Your task to perform on an android device: delete location history Image 0: 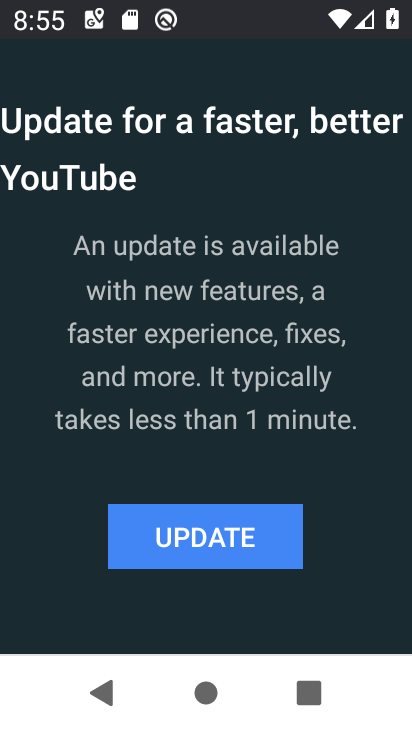
Step 0: press home button
Your task to perform on an android device: delete location history Image 1: 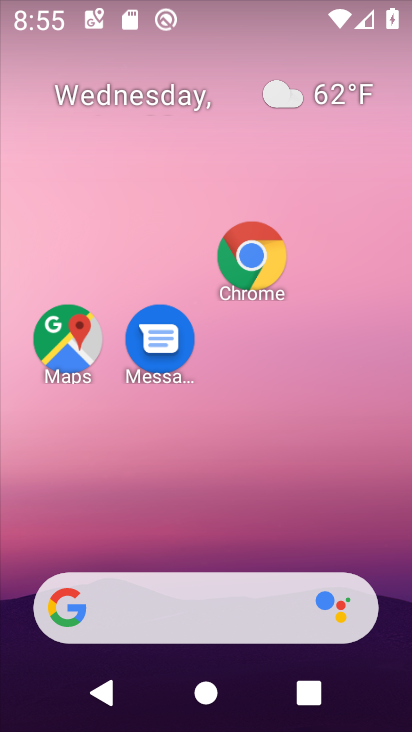
Step 1: drag from (245, 480) to (235, 0)
Your task to perform on an android device: delete location history Image 2: 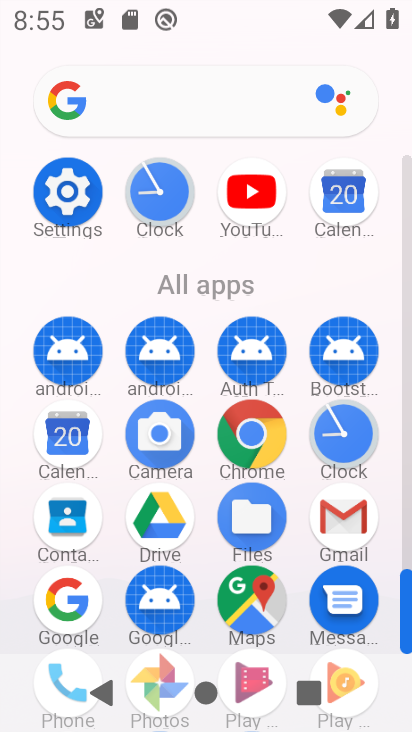
Step 2: click (69, 195)
Your task to perform on an android device: delete location history Image 3: 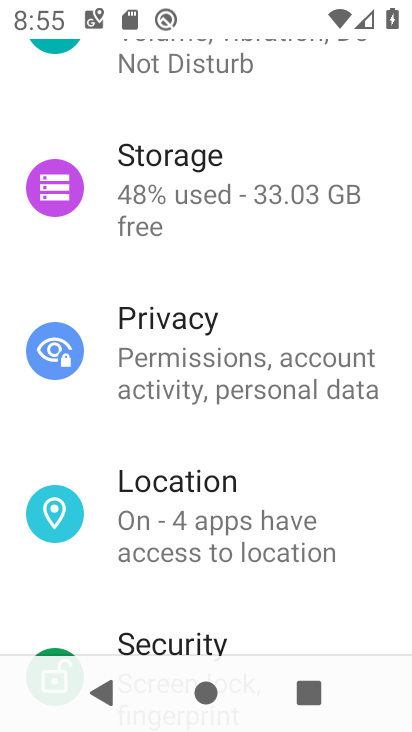
Step 3: click (204, 519)
Your task to perform on an android device: delete location history Image 4: 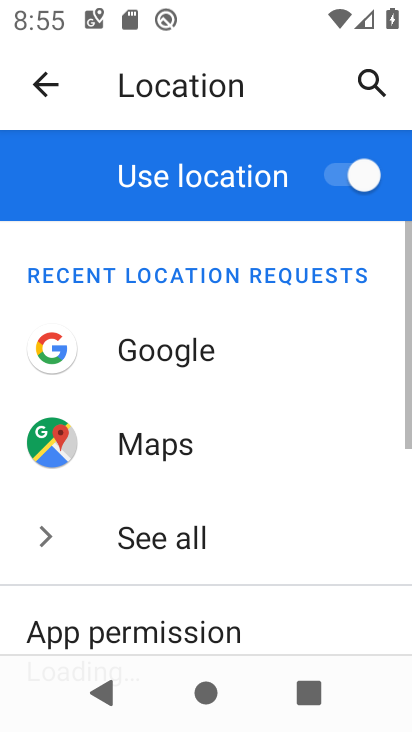
Step 4: drag from (261, 528) to (218, 54)
Your task to perform on an android device: delete location history Image 5: 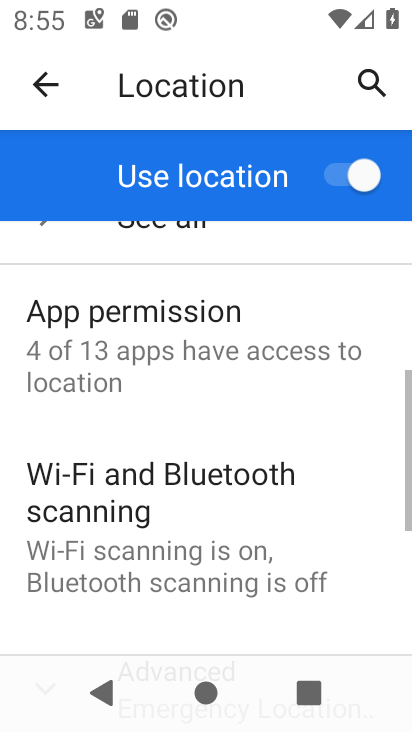
Step 5: drag from (198, 497) to (183, 71)
Your task to perform on an android device: delete location history Image 6: 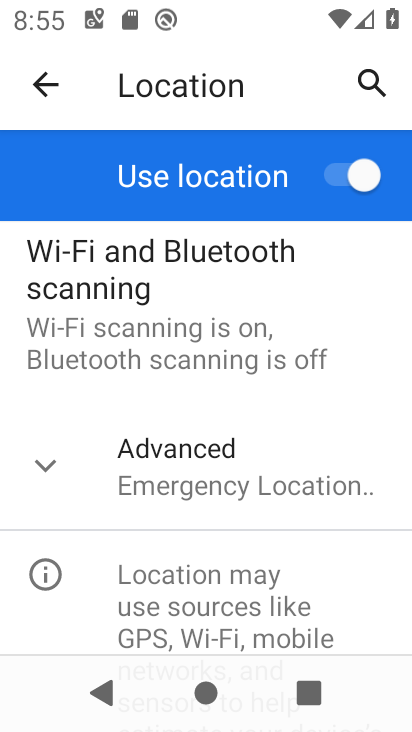
Step 6: click (182, 474)
Your task to perform on an android device: delete location history Image 7: 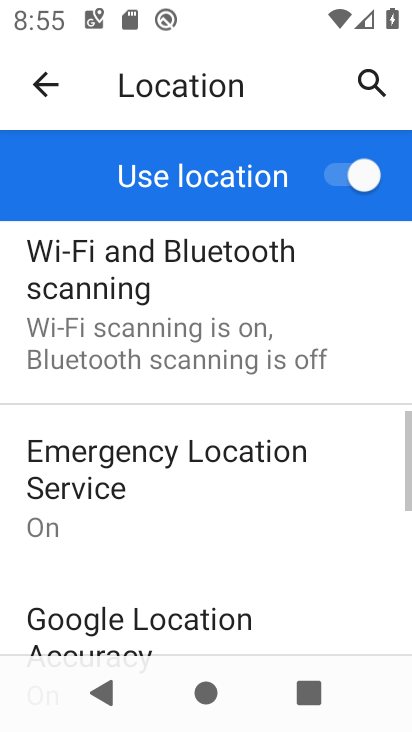
Step 7: drag from (227, 618) to (213, 178)
Your task to perform on an android device: delete location history Image 8: 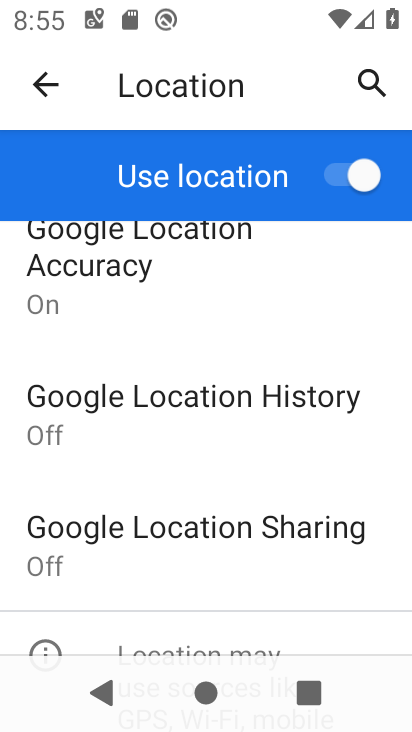
Step 8: click (165, 412)
Your task to perform on an android device: delete location history Image 9: 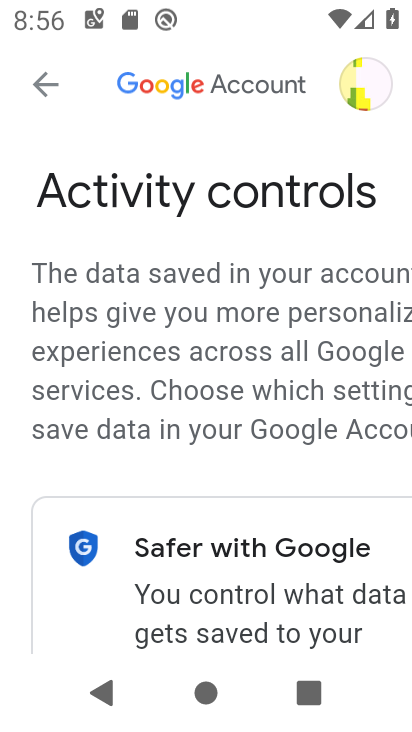
Step 9: drag from (275, 609) to (290, 45)
Your task to perform on an android device: delete location history Image 10: 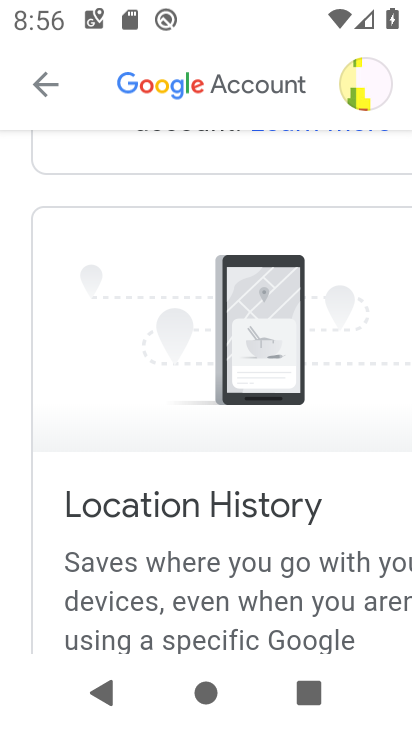
Step 10: drag from (236, 537) to (231, 230)
Your task to perform on an android device: delete location history Image 11: 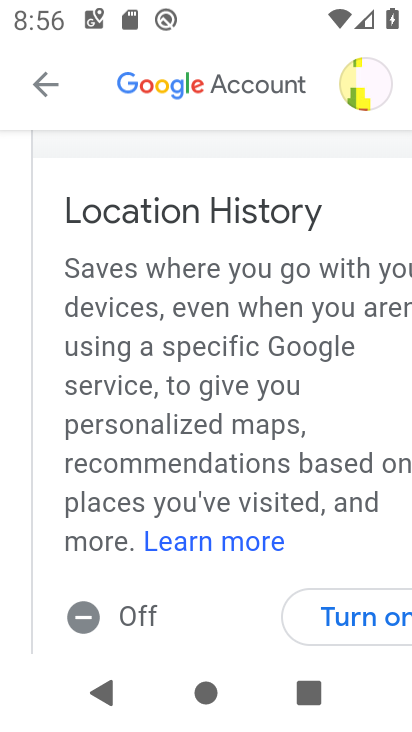
Step 11: drag from (204, 486) to (194, 216)
Your task to perform on an android device: delete location history Image 12: 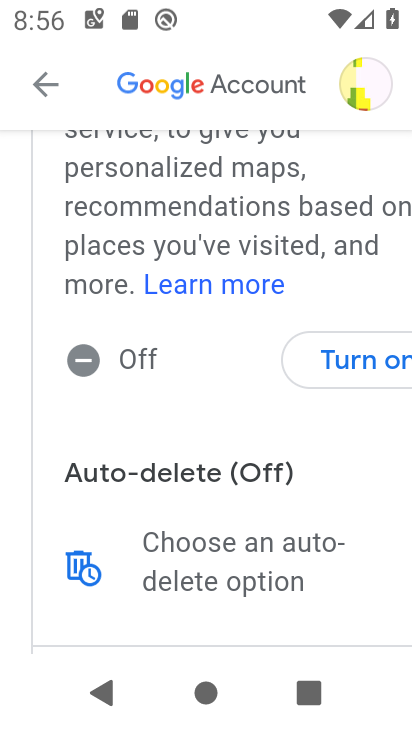
Step 12: click (78, 564)
Your task to perform on an android device: delete location history Image 13: 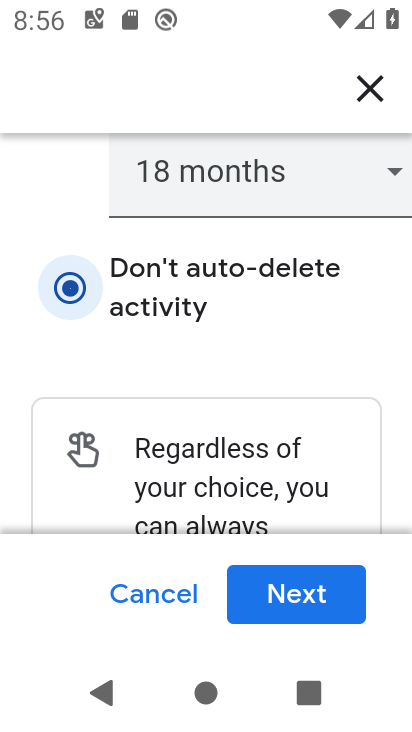
Step 13: click (286, 592)
Your task to perform on an android device: delete location history Image 14: 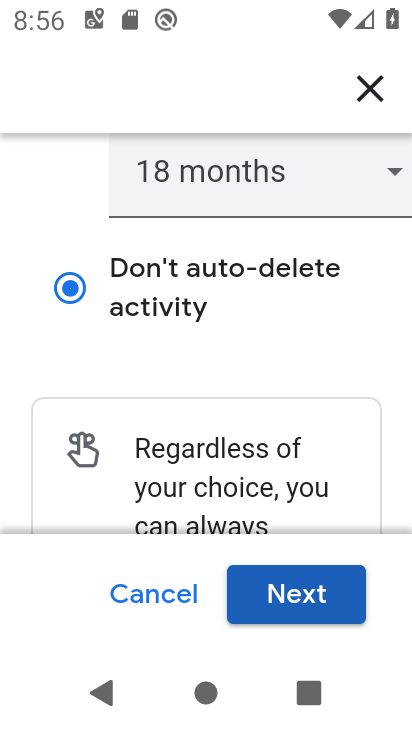
Step 14: click (286, 592)
Your task to perform on an android device: delete location history Image 15: 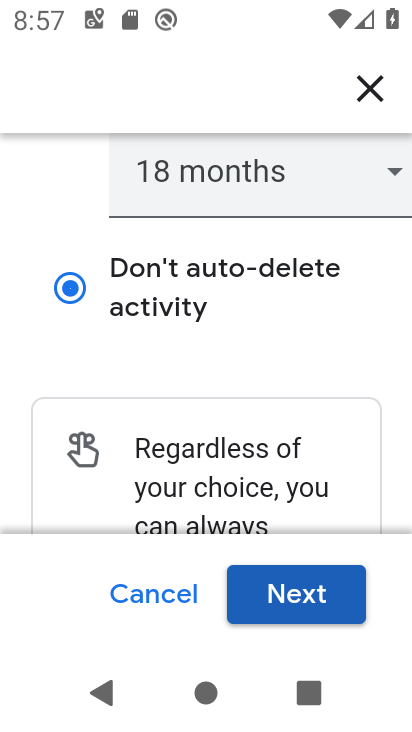
Step 15: task complete